Your task to perform on an android device: toggle sleep mode Image 0: 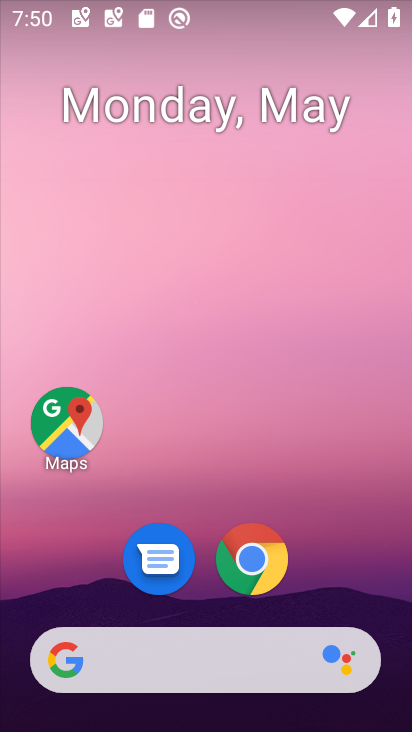
Step 0: drag from (389, 631) to (293, 102)
Your task to perform on an android device: toggle sleep mode Image 1: 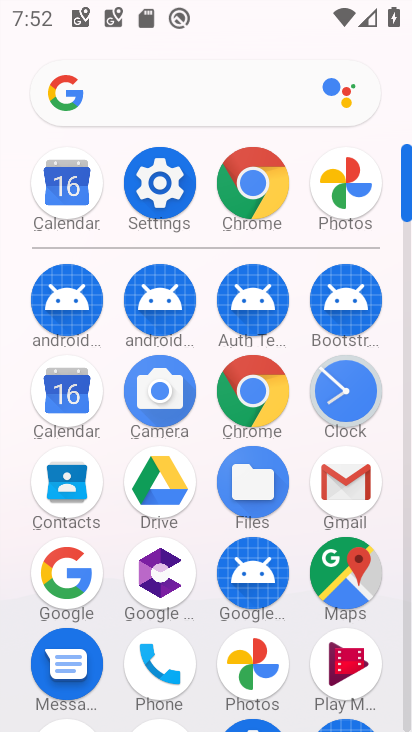
Step 1: click (157, 182)
Your task to perform on an android device: toggle sleep mode Image 2: 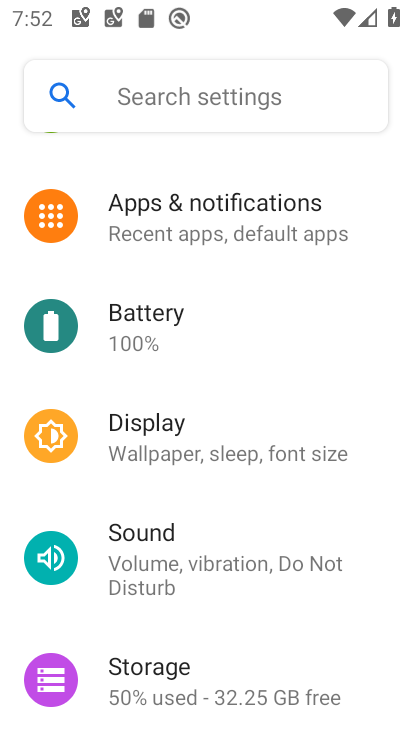
Step 2: task complete